Your task to perform on an android device: change the clock display to analog Image 0: 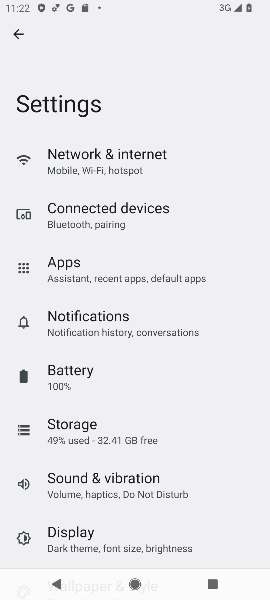
Step 0: press back button
Your task to perform on an android device: change the clock display to analog Image 1: 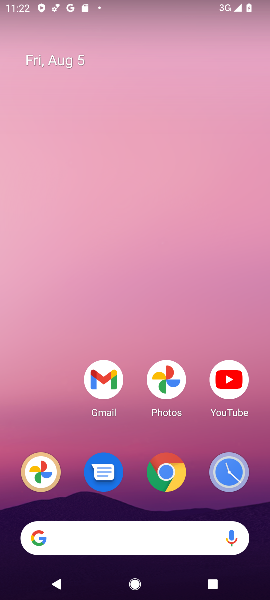
Step 1: drag from (193, 333) to (152, 47)
Your task to perform on an android device: change the clock display to analog Image 2: 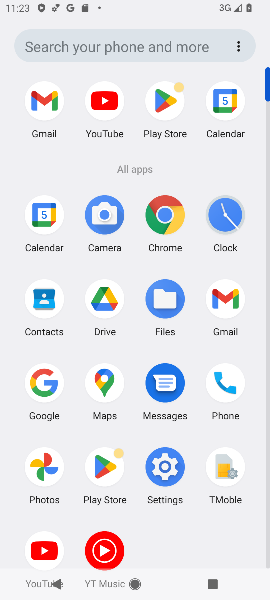
Step 2: click (219, 215)
Your task to perform on an android device: change the clock display to analog Image 3: 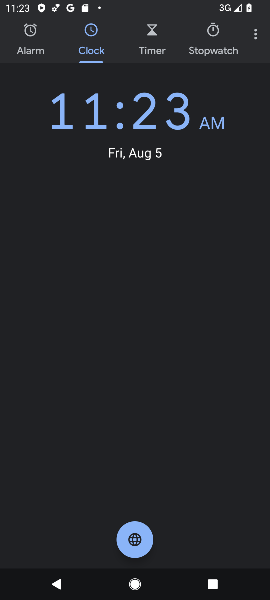
Step 3: click (260, 32)
Your task to perform on an android device: change the clock display to analog Image 4: 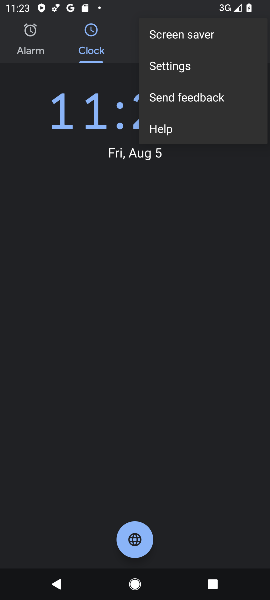
Step 4: click (193, 68)
Your task to perform on an android device: change the clock display to analog Image 5: 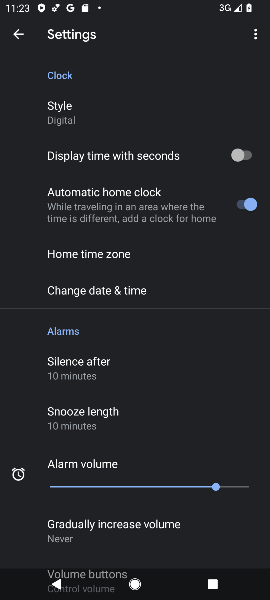
Step 5: click (101, 113)
Your task to perform on an android device: change the clock display to analog Image 6: 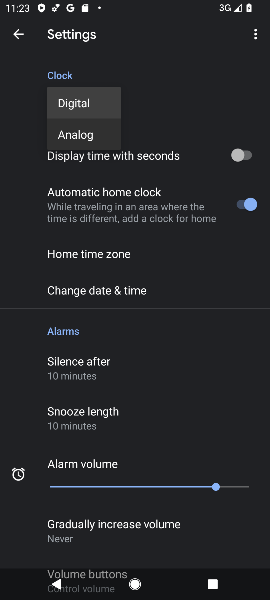
Step 6: click (104, 133)
Your task to perform on an android device: change the clock display to analog Image 7: 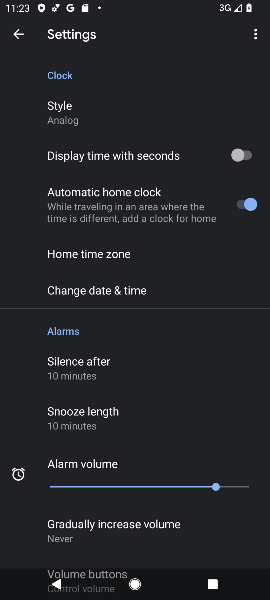
Step 7: task complete